Your task to perform on an android device: Open Maps and search for coffee Image 0: 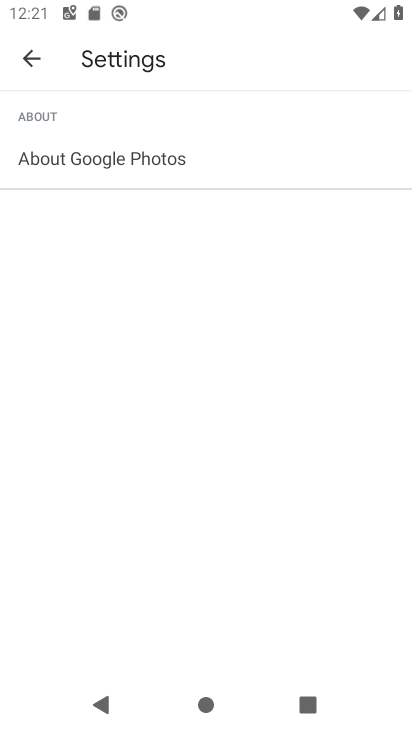
Step 0: press home button
Your task to perform on an android device: Open Maps and search for coffee Image 1: 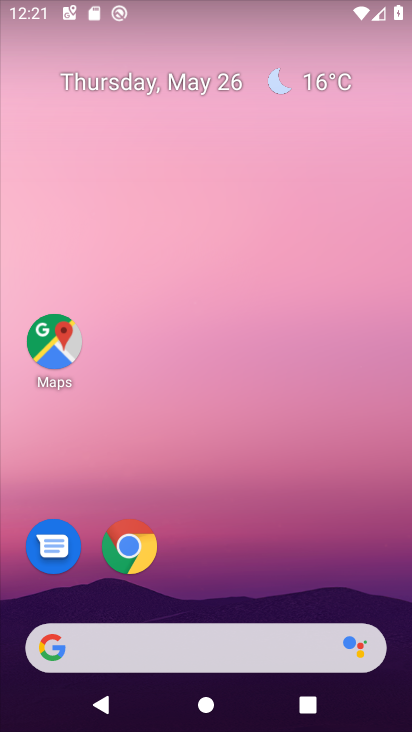
Step 1: click (48, 347)
Your task to perform on an android device: Open Maps and search for coffee Image 2: 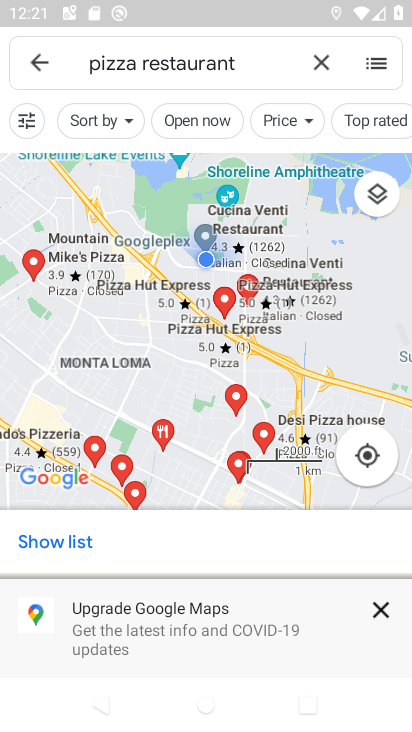
Step 2: click (324, 67)
Your task to perform on an android device: Open Maps and search for coffee Image 3: 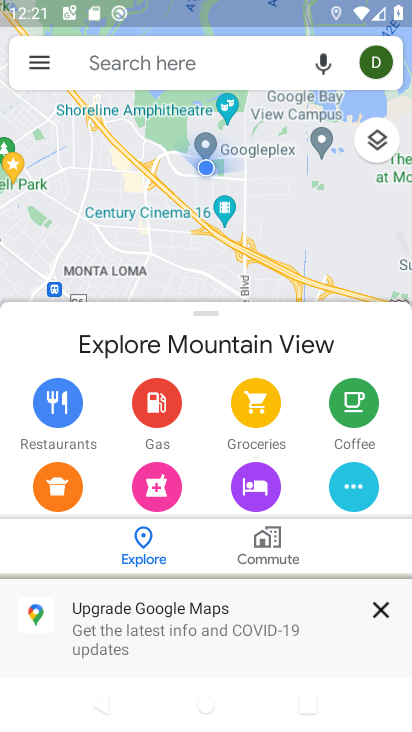
Step 3: click (189, 67)
Your task to perform on an android device: Open Maps and search for coffee Image 4: 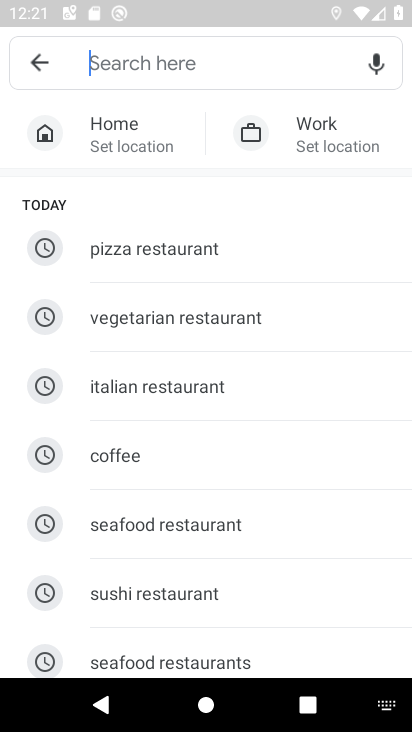
Step 4: type " coffee"
Your task to perform on an android device: Open Maps and search for coffee Image 5: 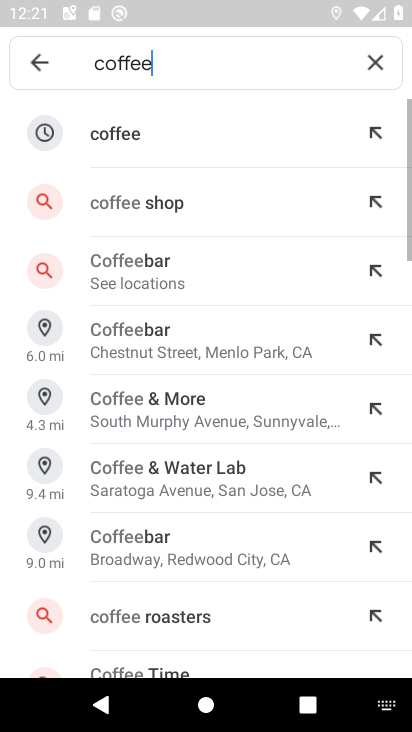
Step 5: click (145, 143)
Your task to perform on an android device: Open Maps and search for coffee Image 6: 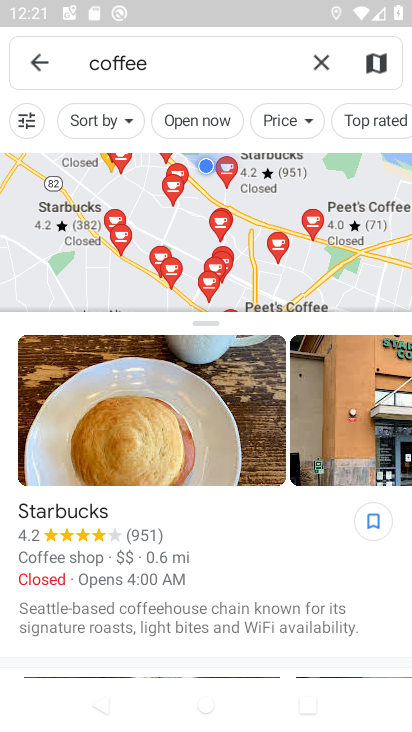
Step 6: task complete